Your task to perform on an android device: Go to Reddit.com Image 0: 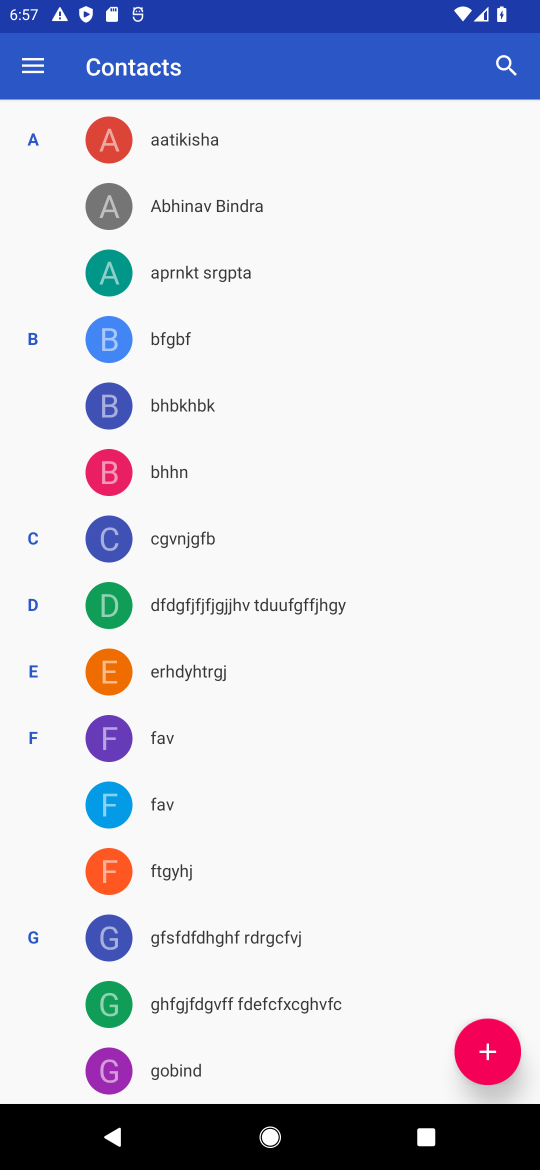
Step 0: press home button
Your task to perform on an android device: Go to Reddit.com Image 1: 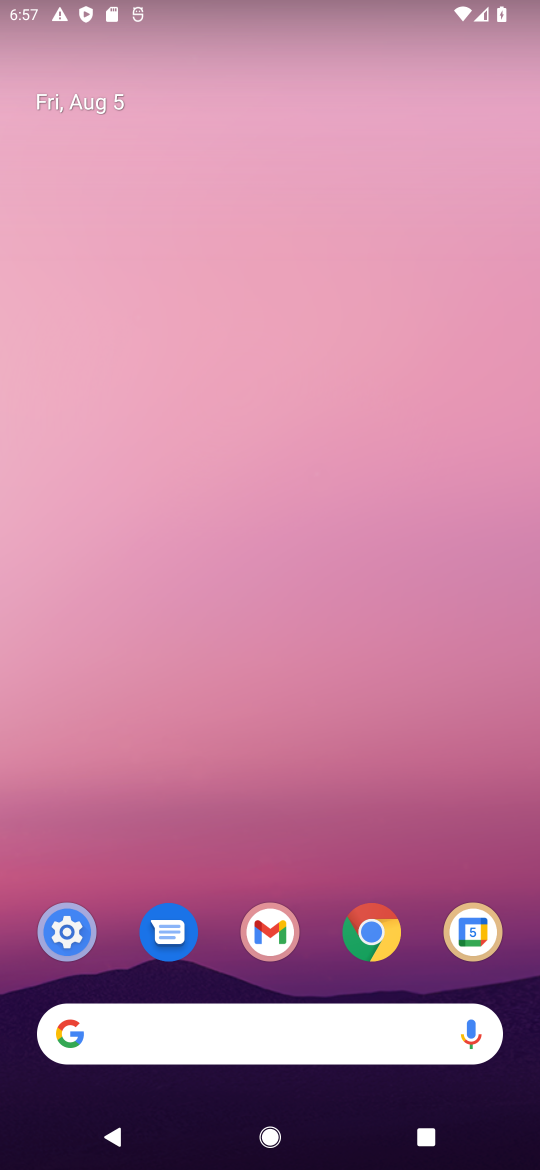
Step 1: click (373, 937)
Your task to perform on an android device: Go to Reddit.com Image 2: 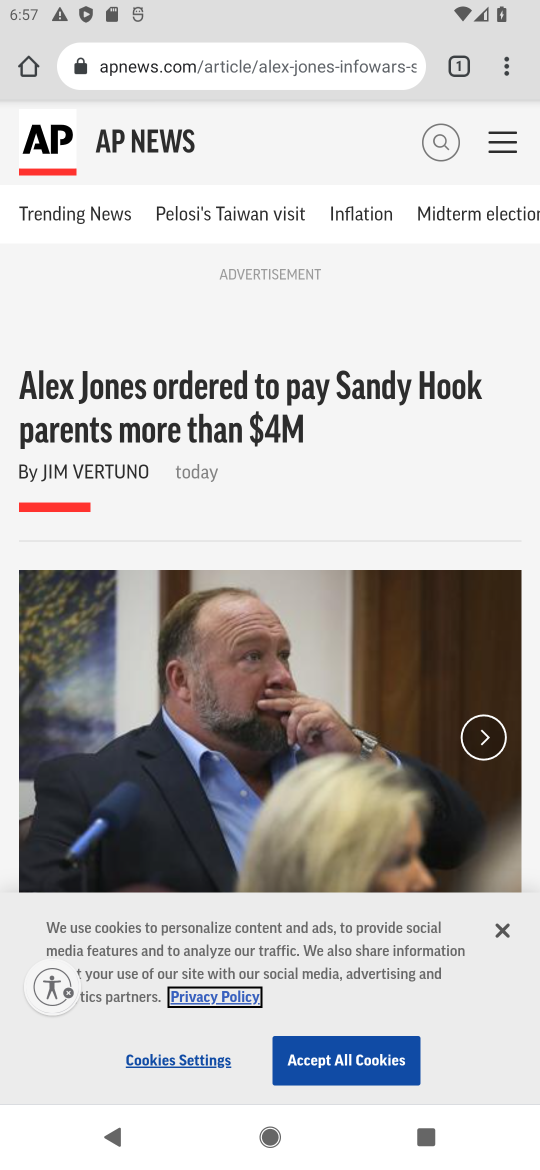
Step 2: click (312, 67)
Your task to perform on an android device: Go to Reddit.com Image 3: 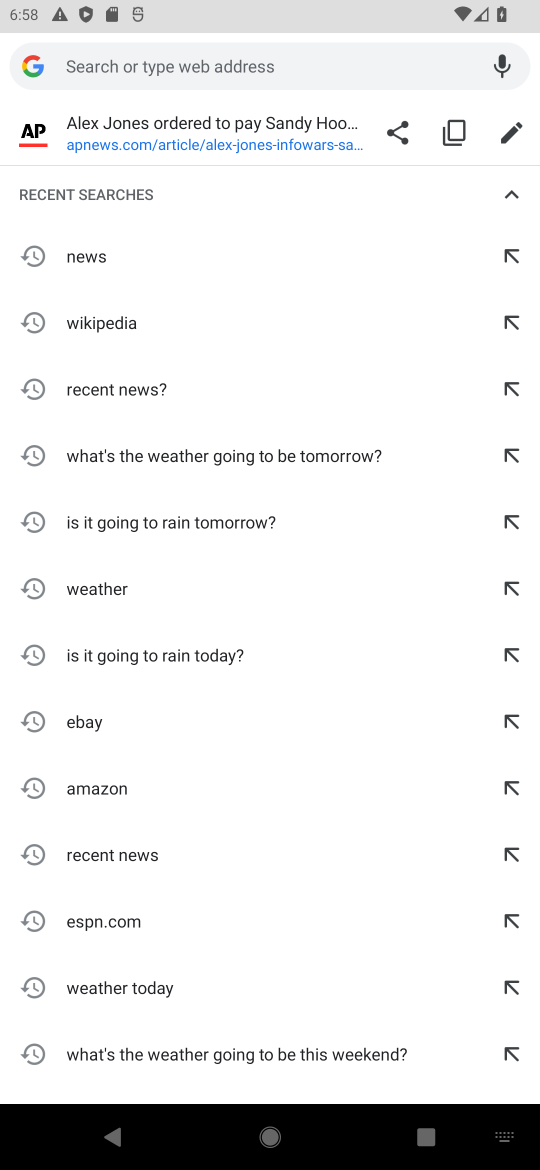
Step 3: type "Reddit.com"
Your task to perform on an android device: Go to Reddit.com Image 4: 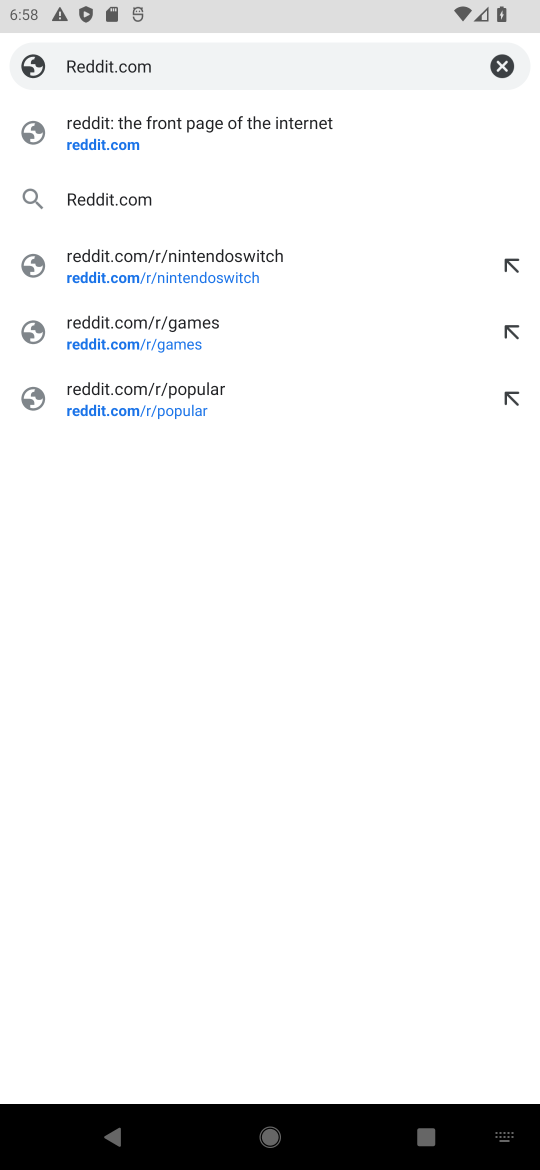
Step 4: click (139, 201)
Your task to perform on an android device: Go to Reddit.com Image 5: 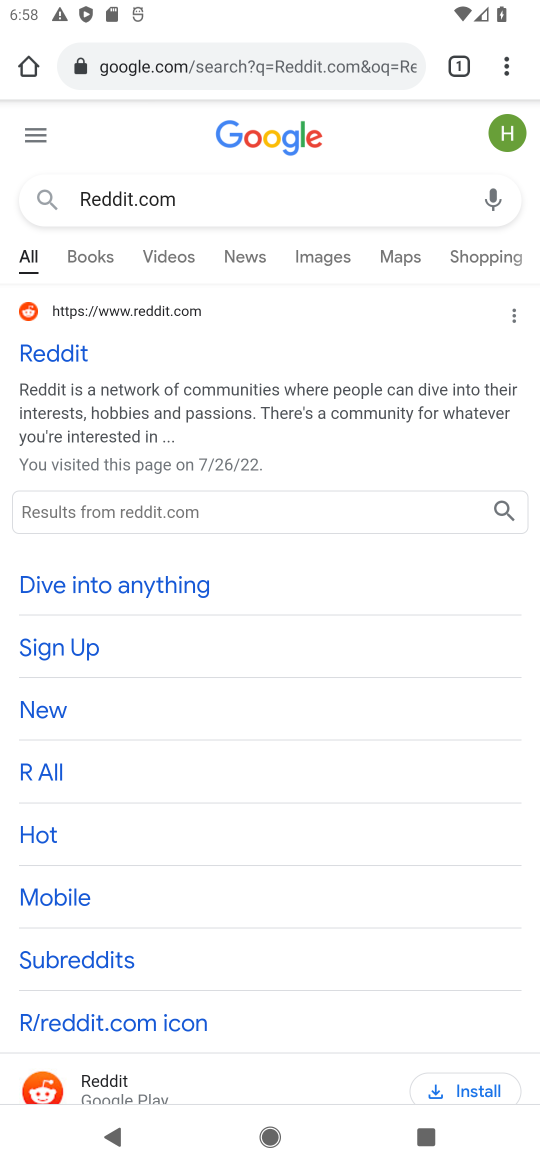
Step 5: click (72, 358)
Your task to perform on an android device: Go to Reddit.com Image 6: 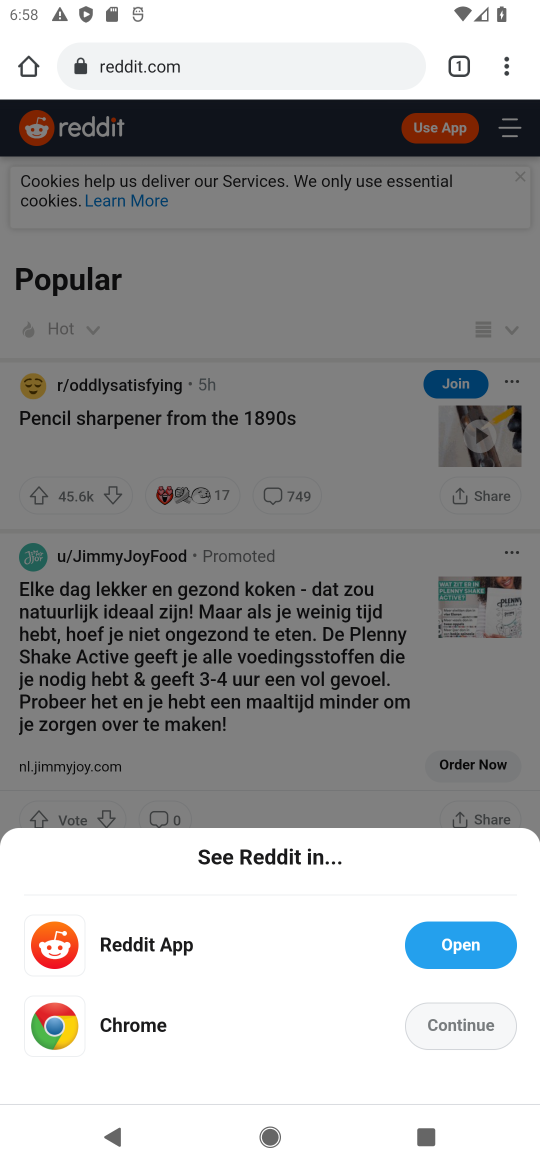
Step 6: click (451, 1020)
Your task to perform on an android device: Go to Reddit.com Image 7: 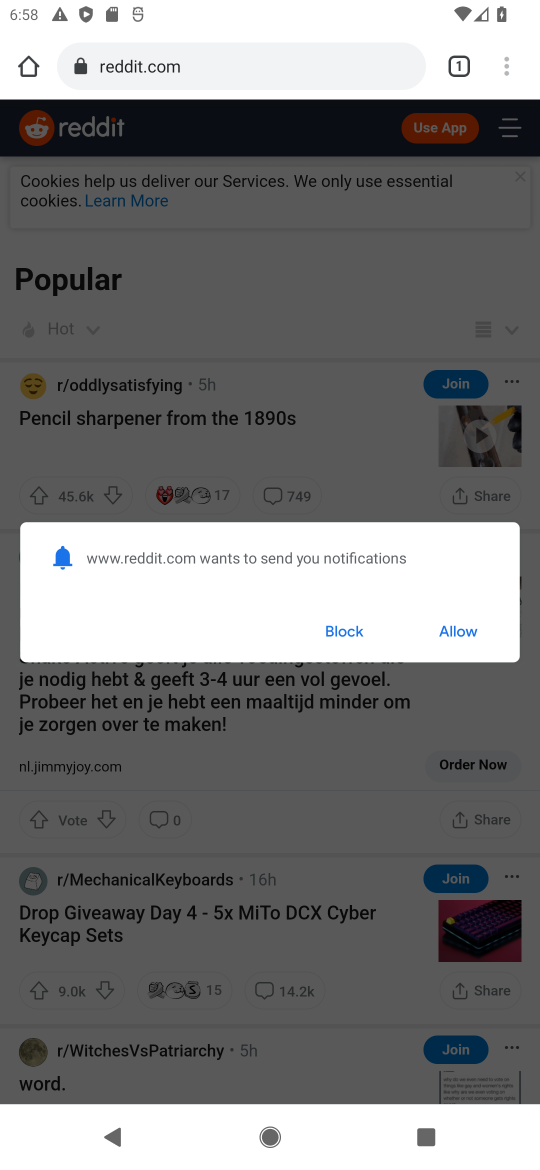
Step 7: click (476, 624)
Your task to perform on an android device: Go to Reddit.com Image 8: 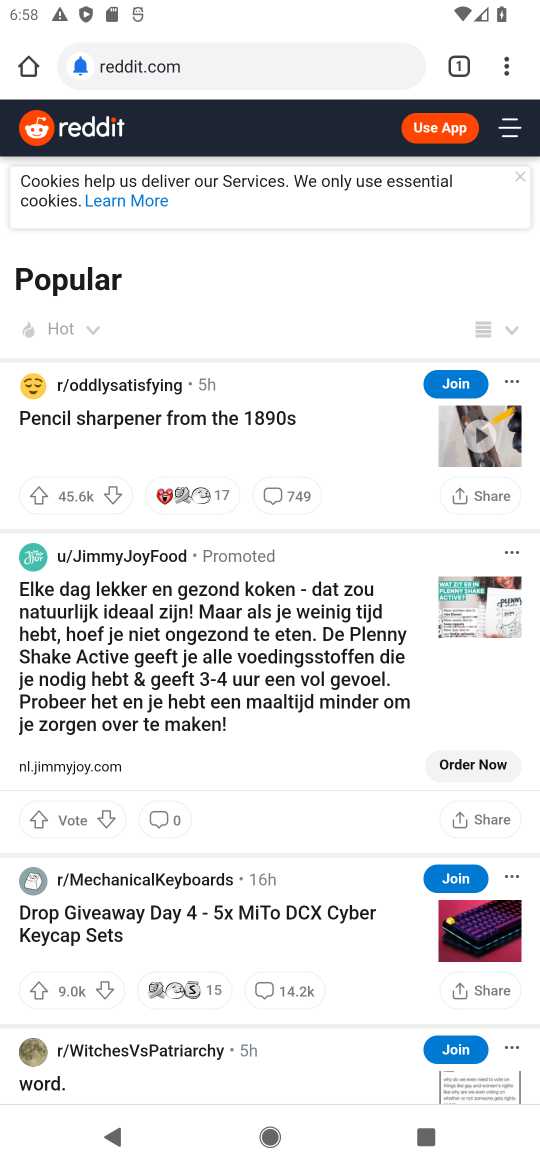
Step 8: task complete